Your task to perform on an android device: Open sound settings Image 0: 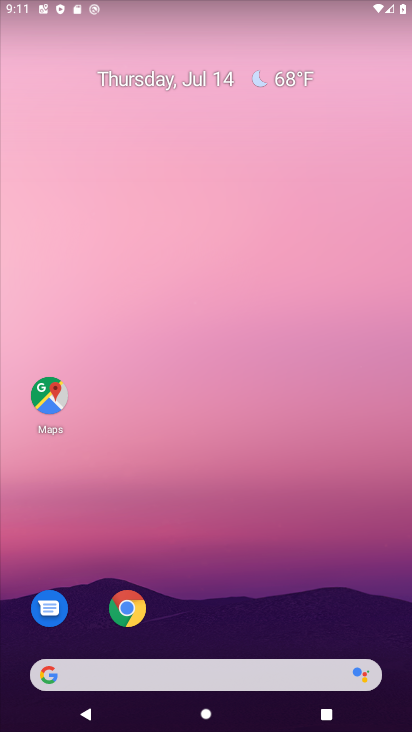
Step 0: drag from (213, 671) to (233, 45)
Your task to perform on an android device: Open sound settings Image 1: 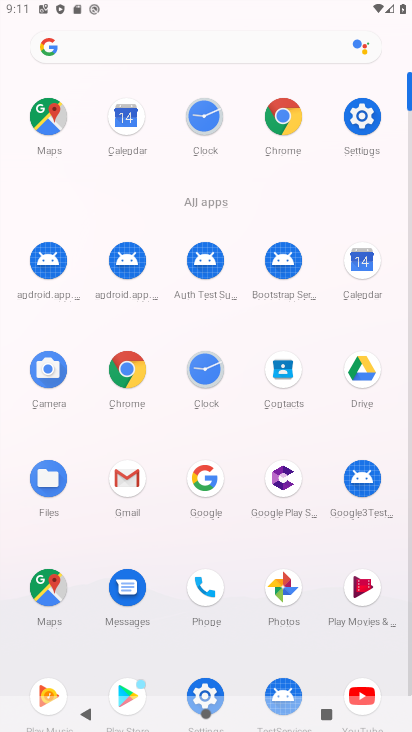
Step 1: click (359, 131)
Your task to perform on an android device: Open sound settings Image 2: 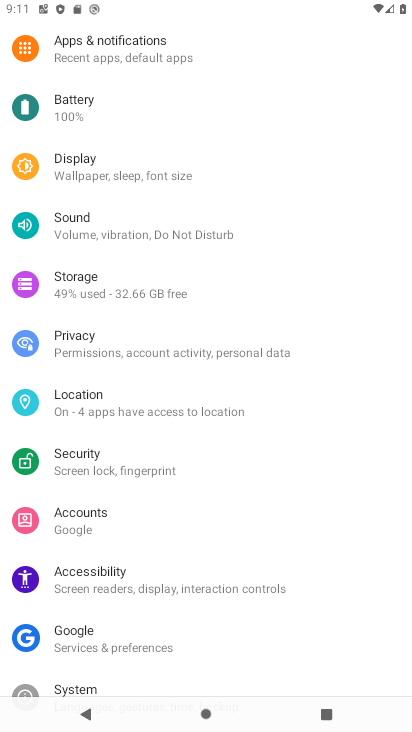
Step 2: click (80, 240)
Your task to perform on an android device: Open sound settings Image 3: 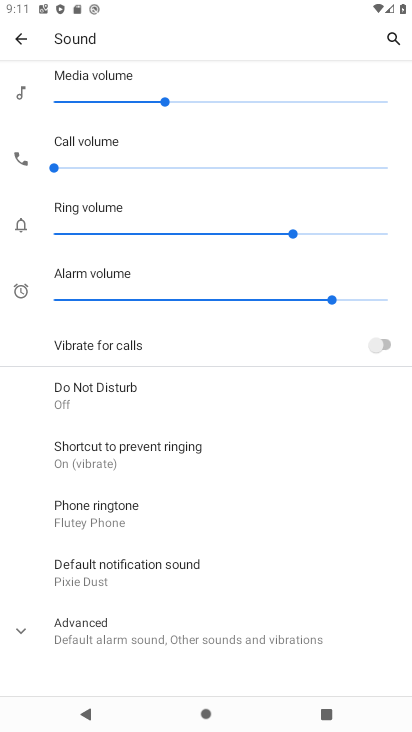
Step 3: task complete